Your task to perform on an android device: open app "LinkedIn" Image 0: 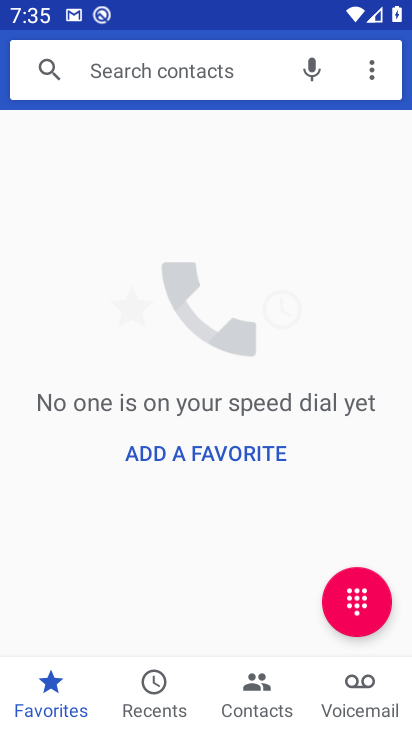
Step 0: press home button
Your task to perform on an android device: open app "LinkedIn" Image 1: 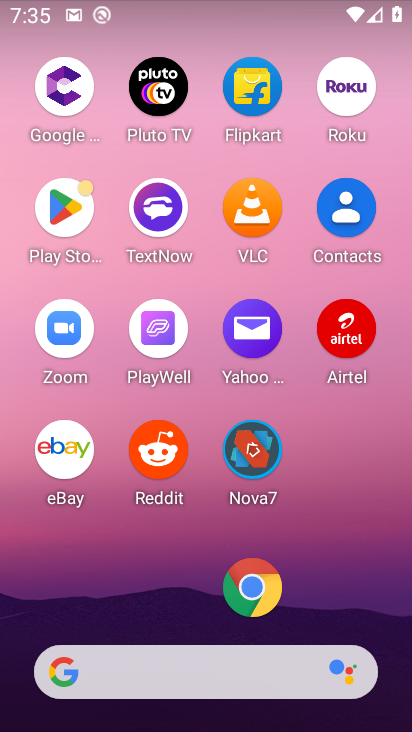
Step 1: click (75, 223)
Your task to perform on an android device: open app "LinkedIn" Image 2: 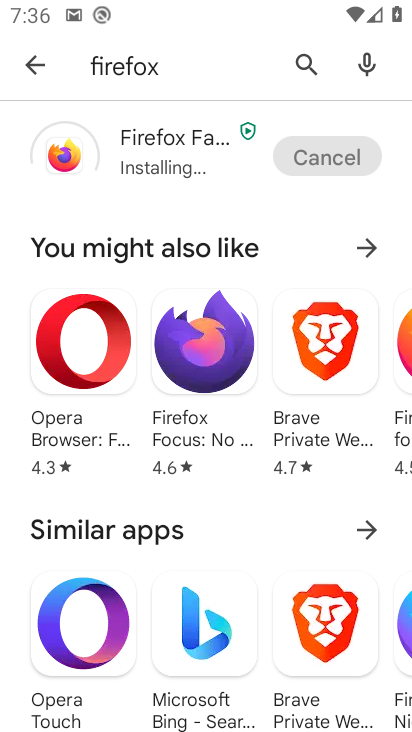
Step 2: click (306, 76)
Your task to perform on an android device: open app "LinkedIn" Image 3: 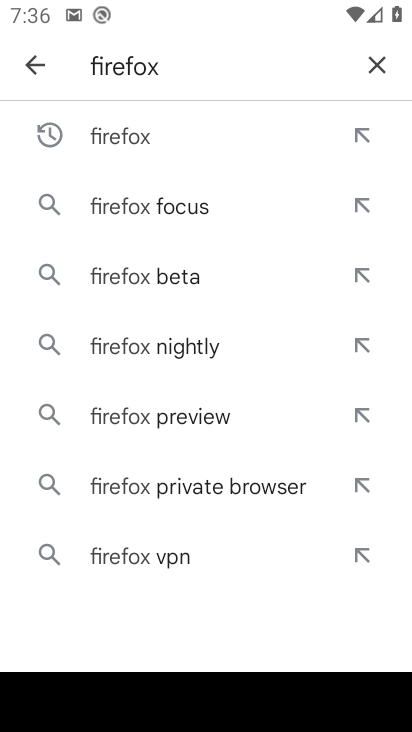
Step 3: click (366, 76)
Your task to perform on an android device: open app "LinkedIn" Image 4: 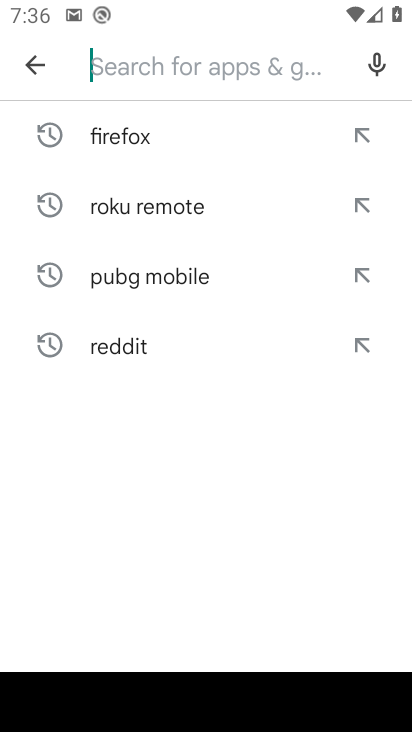
Step 4: type "linkedin"
Your task to perform on an android device: open app "LinkedIn" Image 5: 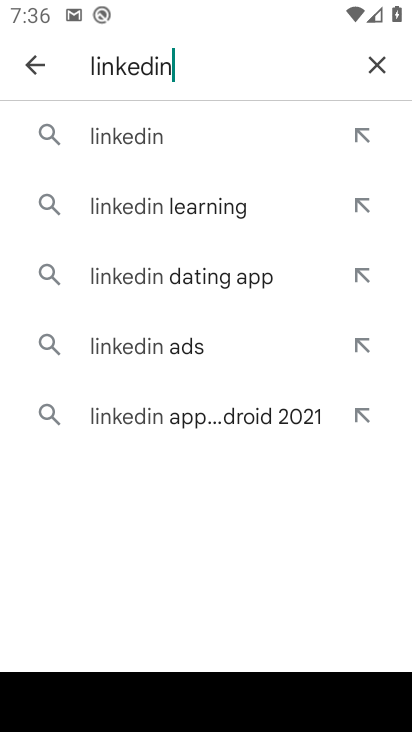
Step 5: click (259, 125)
Your task to perform on an android device: open app "LinkedIn" Image 6: 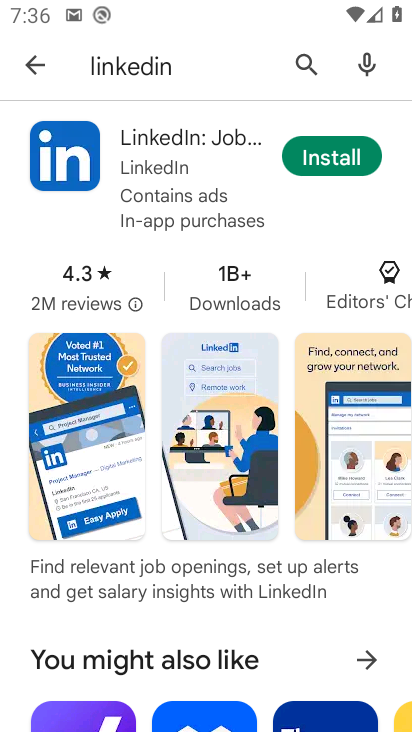
Step 6: click (296, 155)
Your task to perform on an android device: open app "LinkedIn" Image 7: 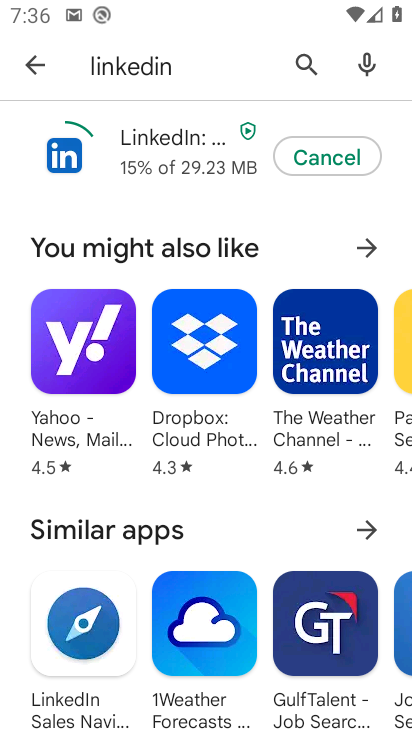
Step 7: task complete